Your task to perform on an android device: delete browsing data in the chrome app Image 0: 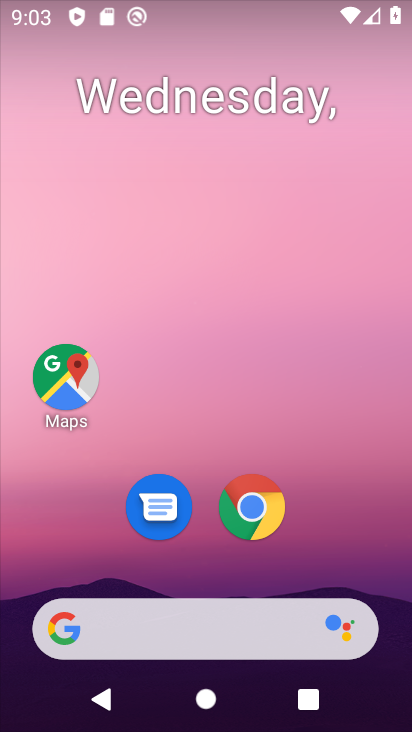
Step 0: click (247, 506)
Your task to perform on an android device: delete browsing data in the chrome app Image 1: 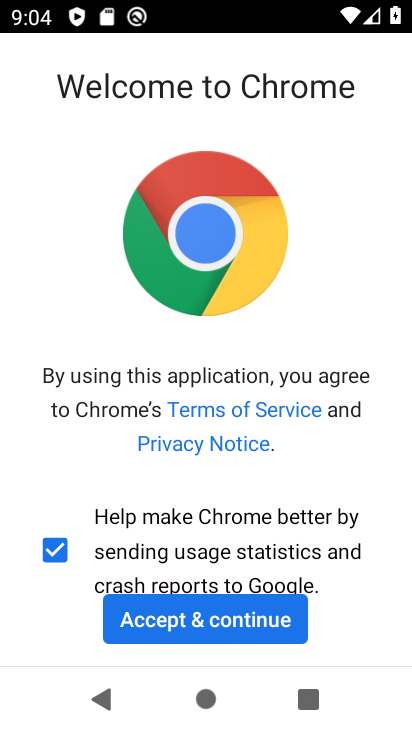
Step 1: click (205, 614)
Your task to perform on an android device: delete browsing data in the chrome app Image 2: 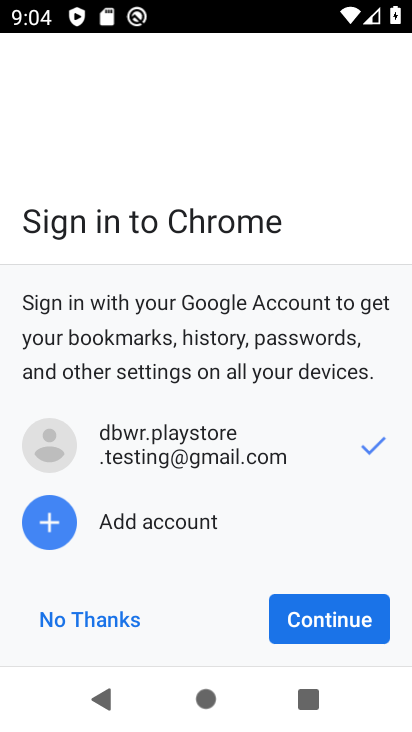
Step 2: click (325, 614)
Your task to perform on an android device: delete browsing data in the chrome app Image 3: 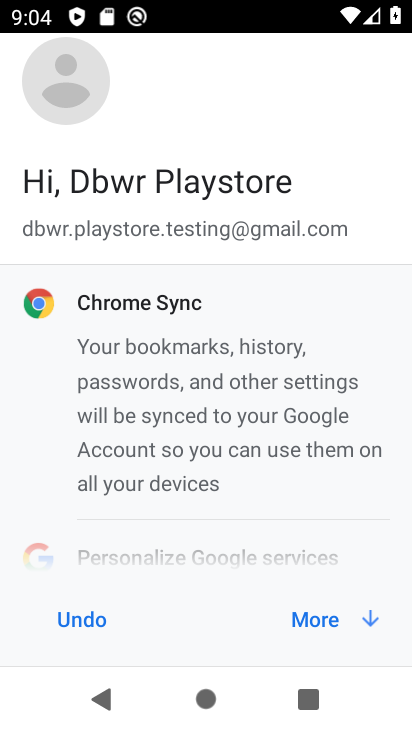
Step 3: click (321, 615)
Your task to perform on an android device: delete browsing data in the chrome app Image 4: 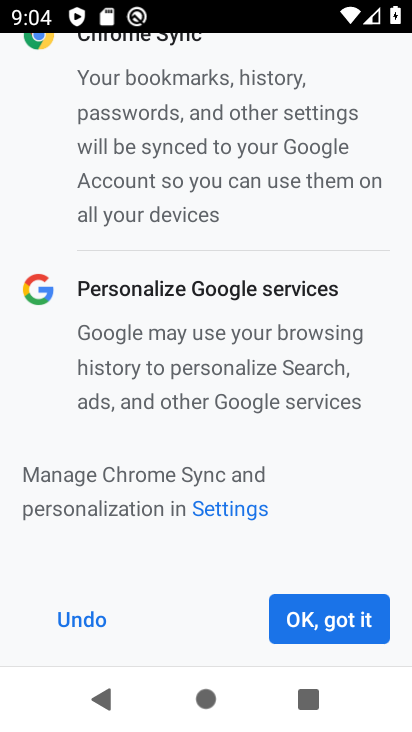
Step 4: click (321, 615)
Your task to perform on an android device: delete browsing data in the chrome app Image 5: 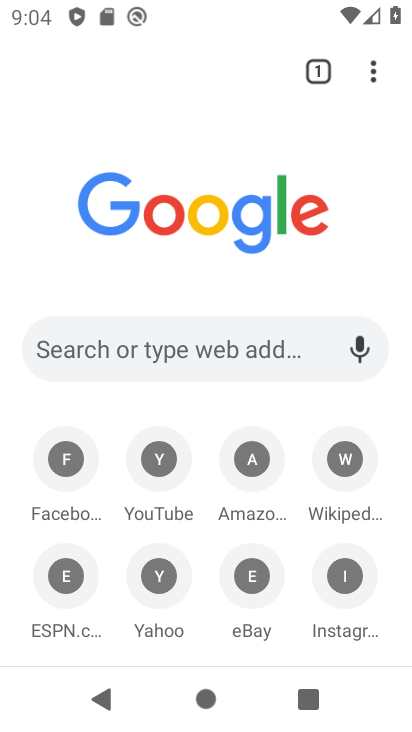
Step 5: task complete